Your task to perform on an android device: turn on improve location accuracy Image 0: 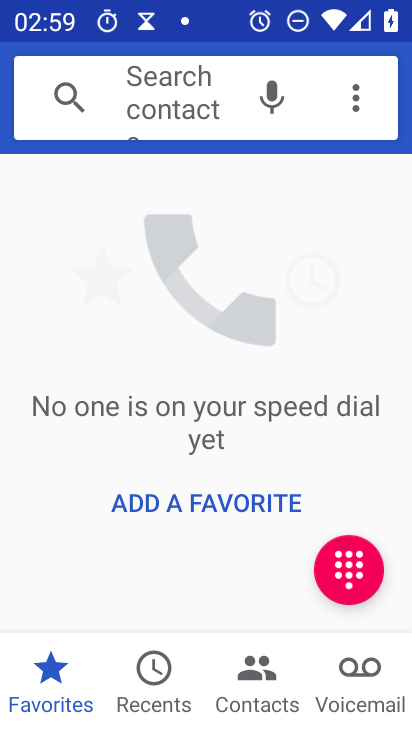
Step 0: drag from (160, 629) to (264, 572)
Your task to perform on an android device: turn on improve location accuracy Image 1: 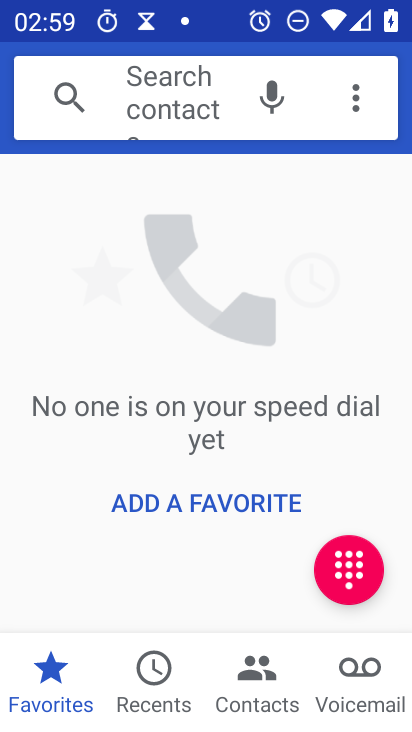
Step 1: press home button
Your task to perform on an android device: turn on improve location accuracy Image 2: 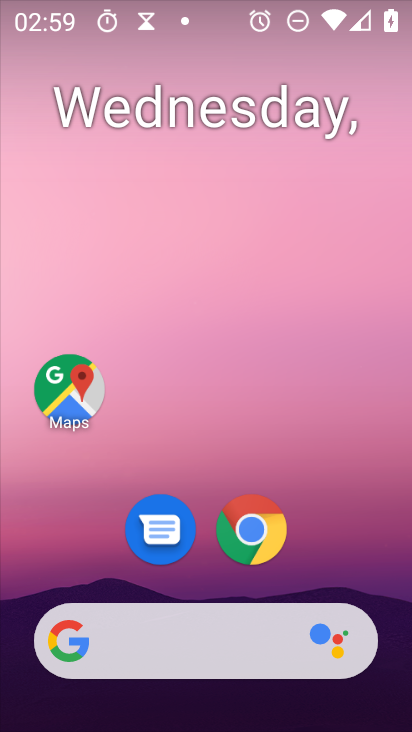
Step 2: drag from (298, 616) to (326, 3)
Your task to perform on an android device: turn on improve location accuracy Image 3: 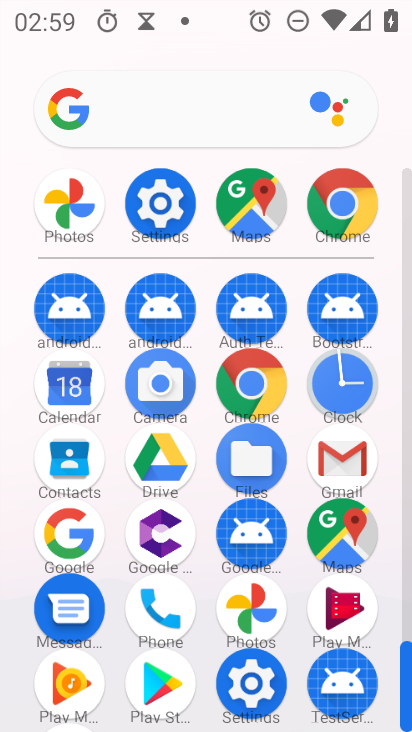
Step 3: click (236, 687)
Your task to perform on an android device: turn on improve location accuracy Image 4: 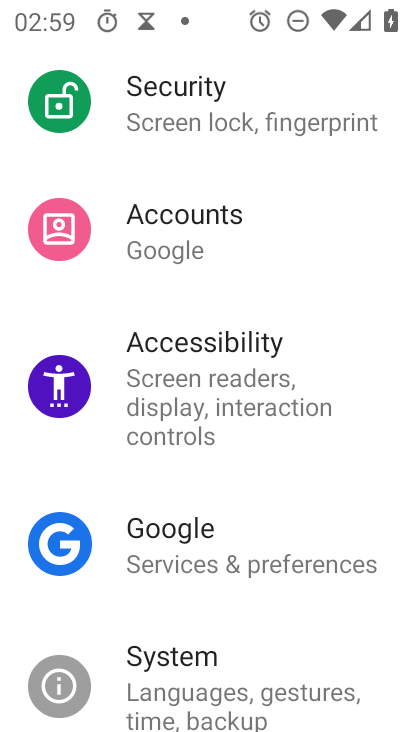
Step 4: drag from (244, 673) to (212, 704)
Your task to perform on an android device: turn on improve location accuracy Image 5: 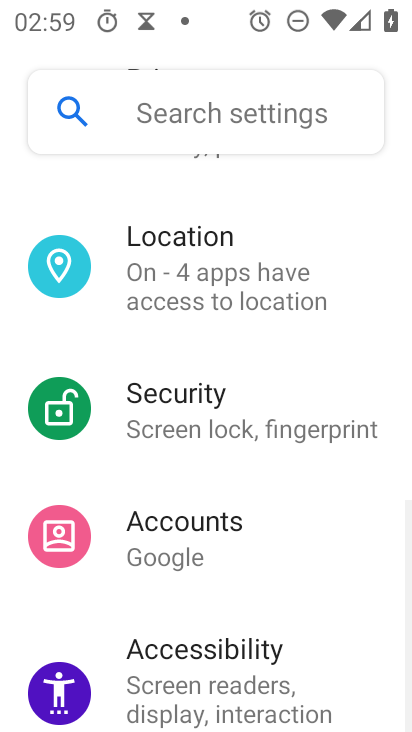
Step 5: drag from (213, 411) to (184, 729)
Your task to perform on an android device: turn on improve location accuracy Image 6: 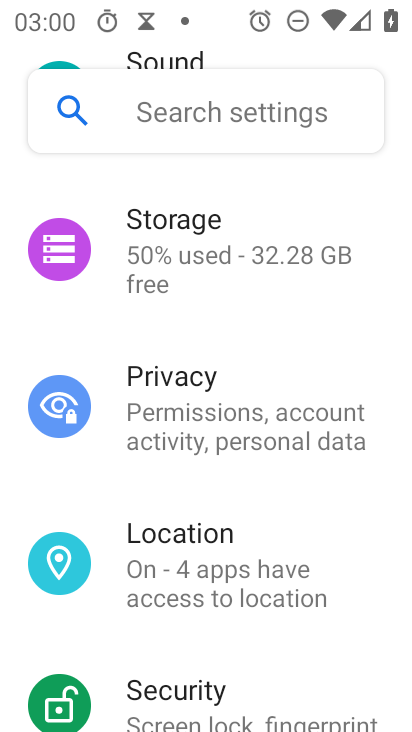
Step 6: click (171, 576)
Your task to perform on an android device: turn on improve location accuracy Image 7: 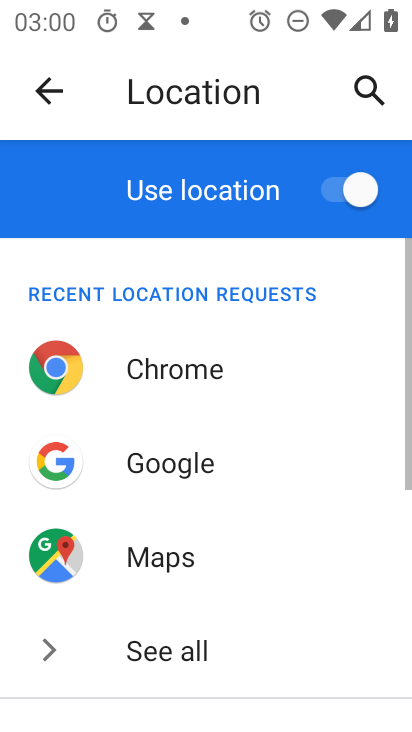
Step 7: drag from (280, 667) to (307, 63)
Your task to perform on an android device: turn on improve location accuracy Image 8: 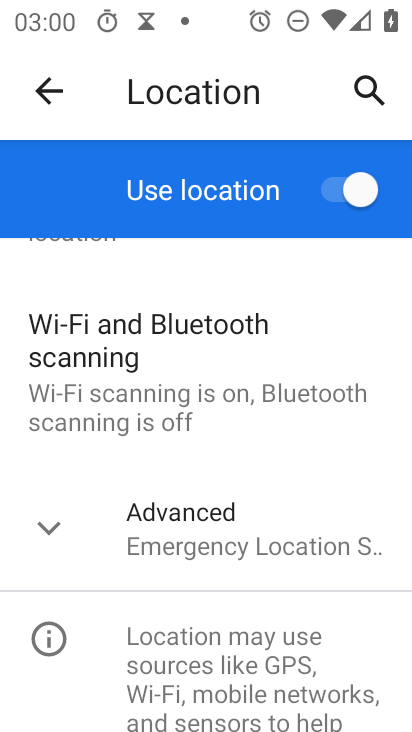
Step 8: click (260, 531)
Your task to perform on an android device: turn on improve location accuracy Image 9: 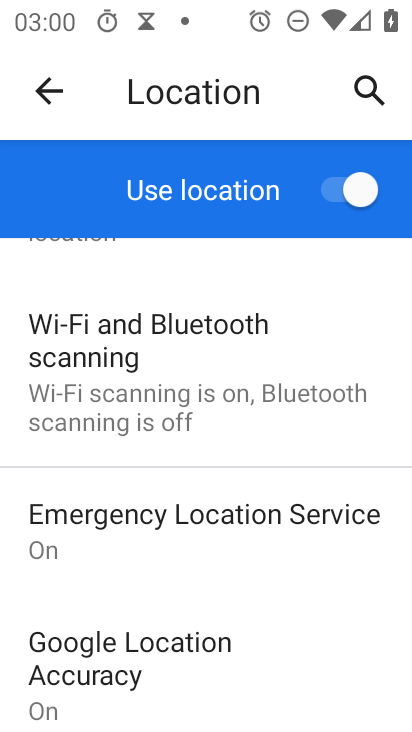
Step 9: drag from (272, 453) to (294, 214)
Your task to perform on an android device: turn on improve location accuracy Image 10: 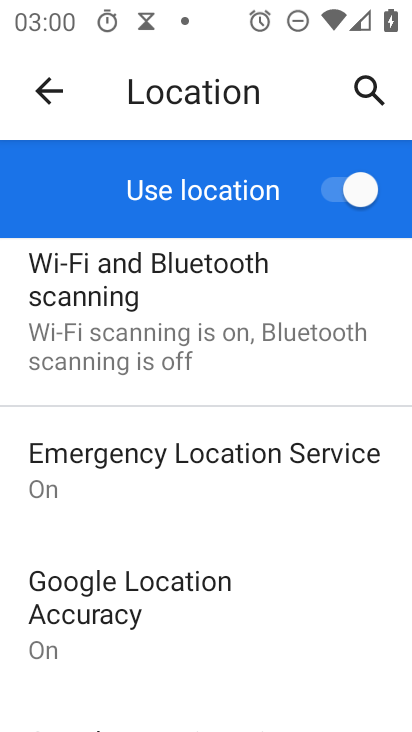
Step 10: click (140, 626)
Your task to perform on an android device: turn on improve location accuracy Image 11: 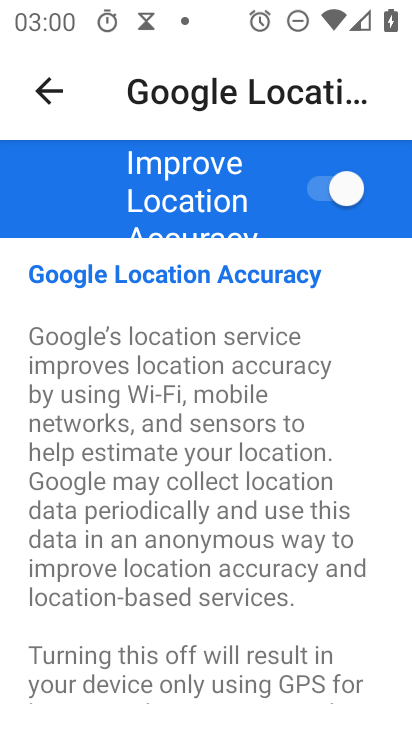
Step 11: task complete